Your task to perform on an android device: What's the weather going to be tomorrow? Image 0: 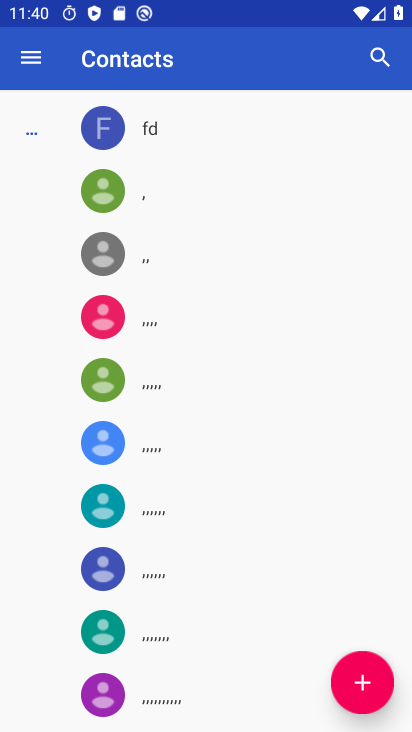
Step 0: press home button
Your task to perform on an android device: What's the weather going to be tomorrow? Image 1: 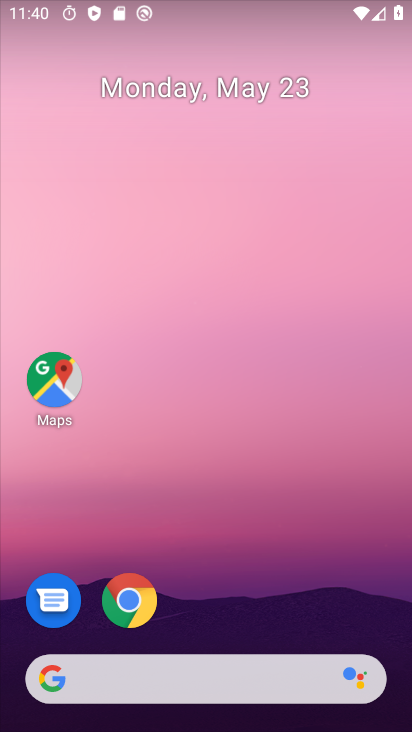
Step 1: click (127, 603)
Your task to perform on an android device: What's the weather going to be tomorrow? Image 2: 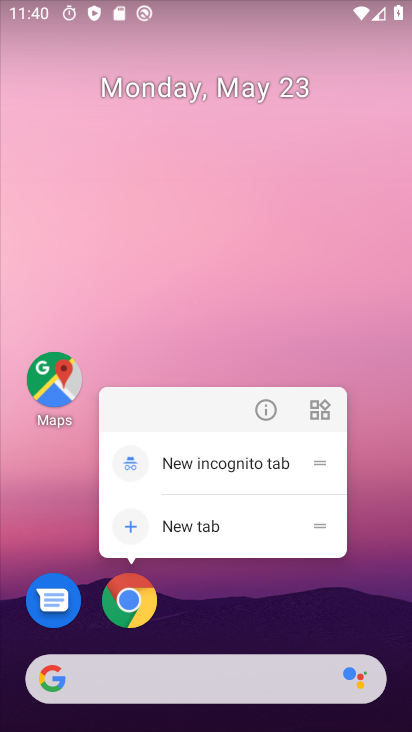
Step 2: click (128, 600)
Your task to perform on an android device: What's the weather going to be tomorrow? Image 3: 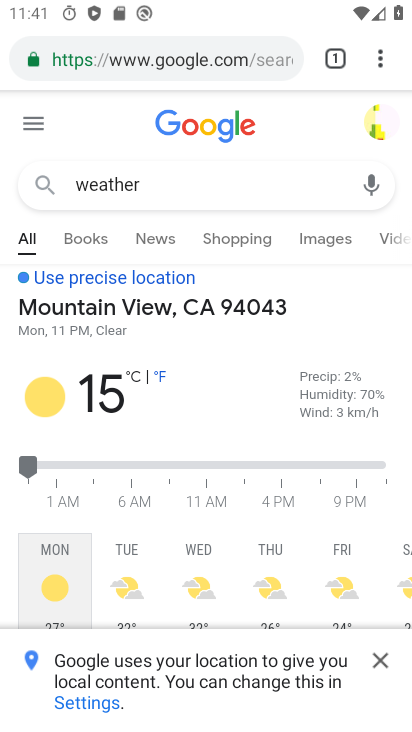
Step 3: click (142, 576)
Your task to perform on an android device: What's the weather going to be tomorrow? Image 4: 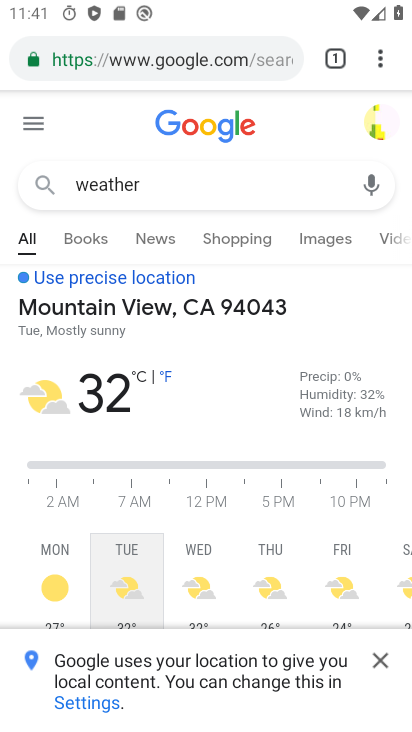
Step 4: task complete